Your task to perform on an android device: uninstall "Yahoo Mail" Image 0: 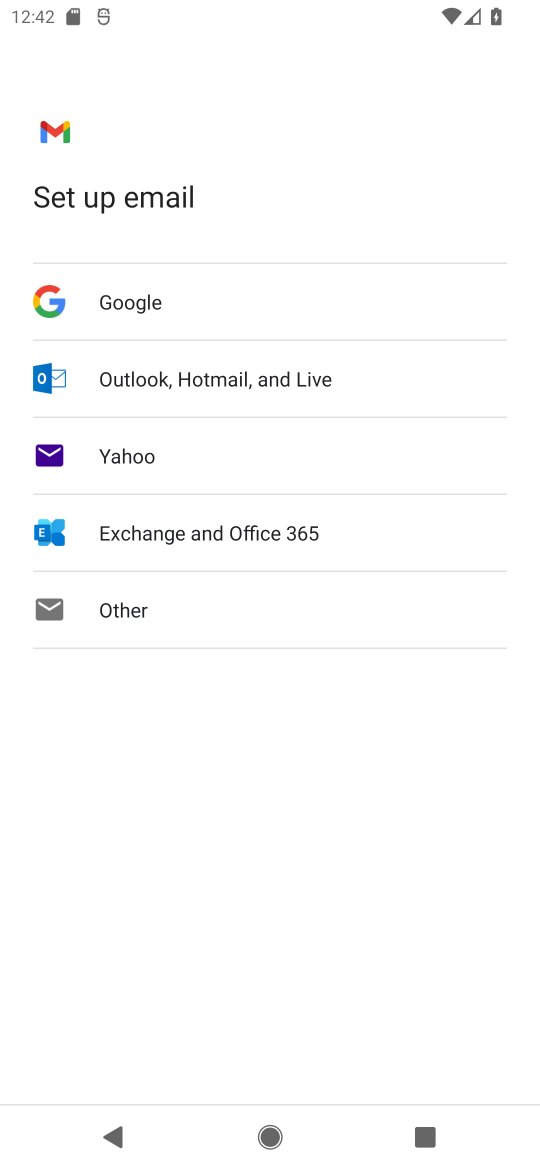
Step 0: press home button
Your task to perform on an android device: uninstall "Yahoo Mail" Image 1: 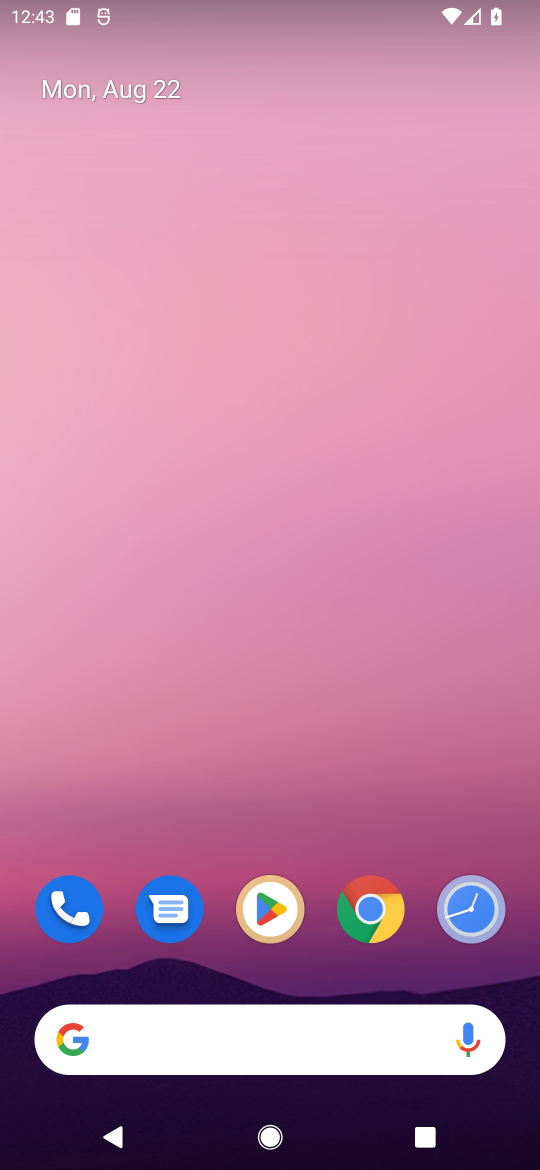
Step 1: click (259, 916)
Your task to perform on an android device: uninstall "Yahoo Mail" Image 2: 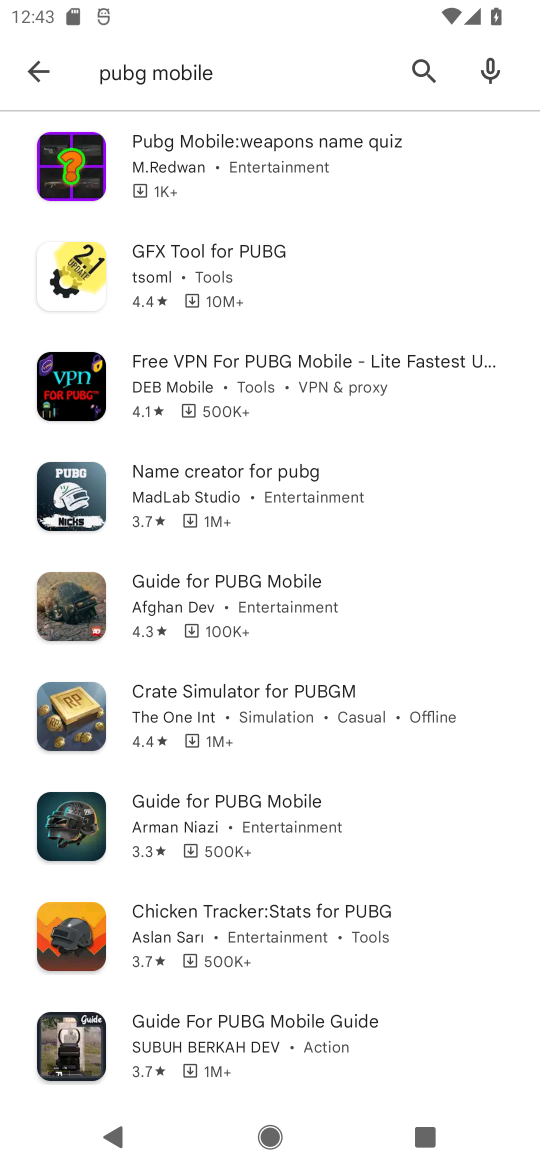
Step 2: click (406, 96)
Your task to perform on an android device: uninstall "Yahoo Mail" Image 3: 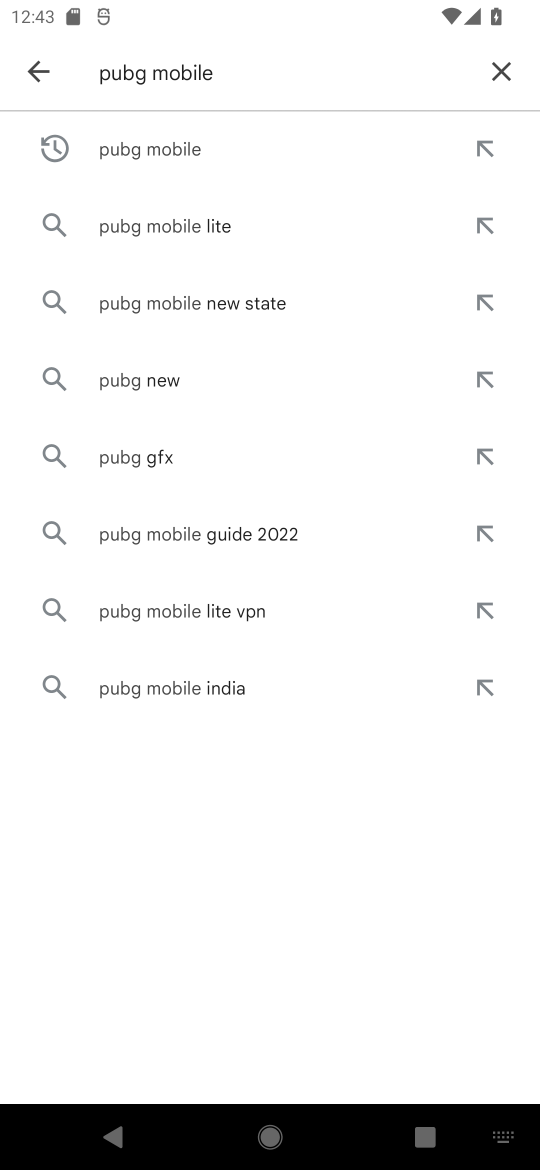
Step 3: click (518, 66)
Your task to perform on an android device: uninstall "Yahoo Mail" Image 4: 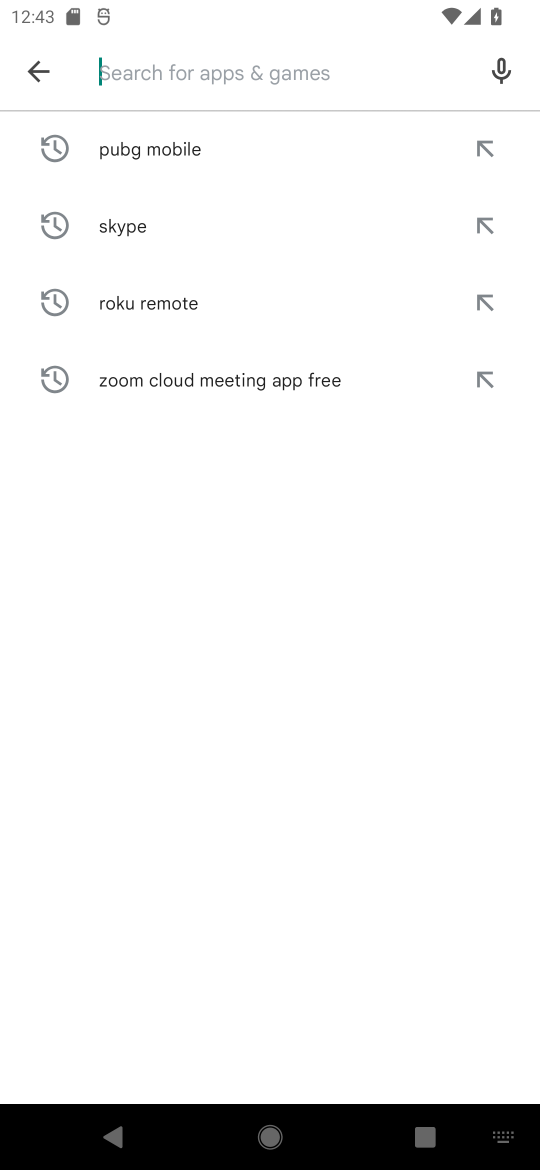
Step 4: click (166, 77)
Your task to perform on an android device: uninstall "Yahoo Mail" Image 5: 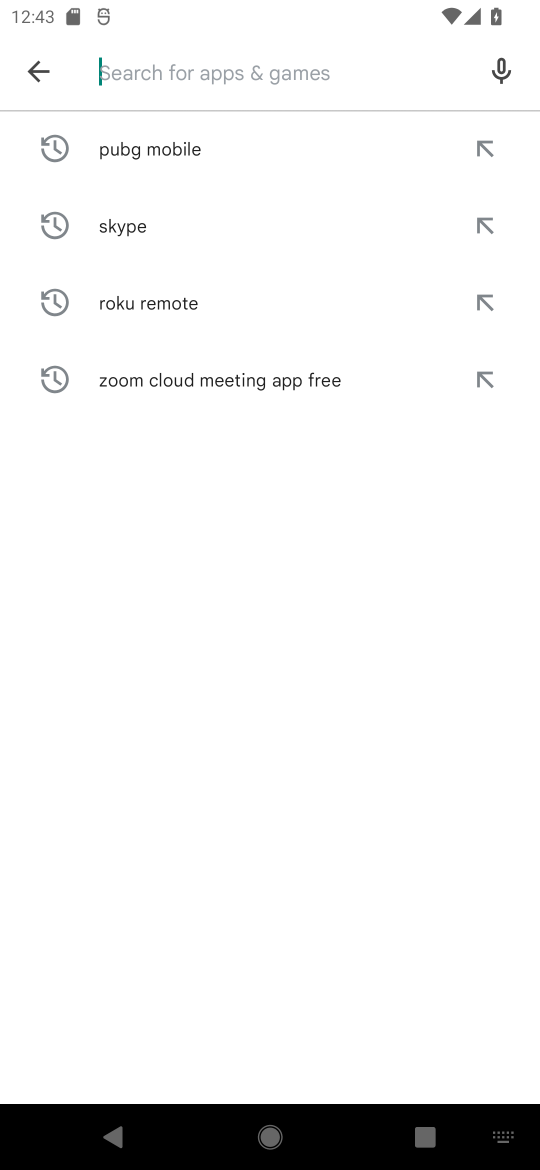
Step 5: type "Yahoo Mail"
Your task to perform on an android device: uninstall "Yahoo Mail" Image 6: 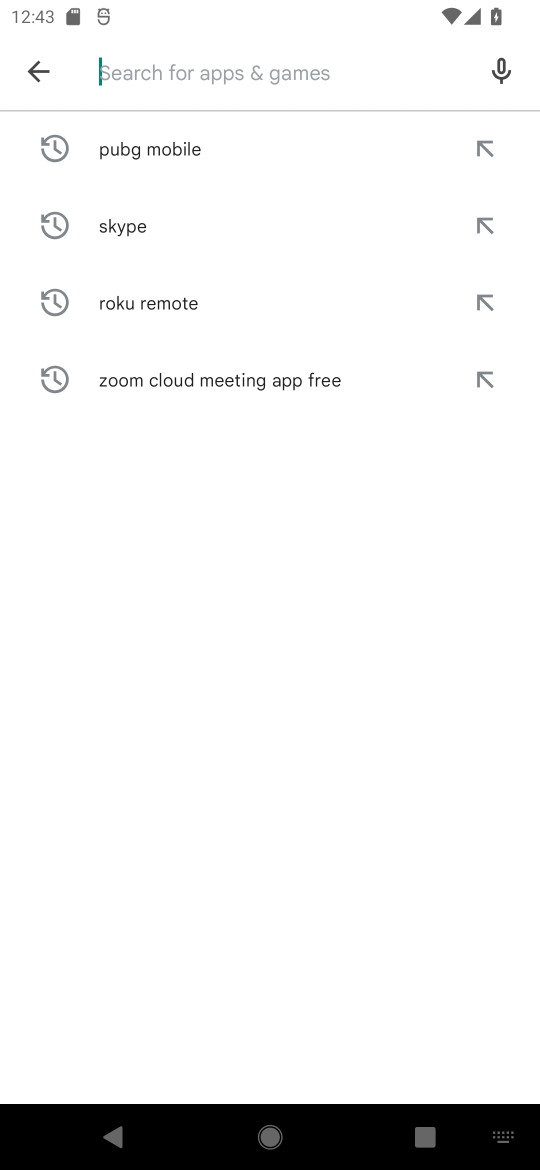
Step 6: click (339, 710)
Your task to perform on an android device: uninstall "Yahoo Mail" Image 7: 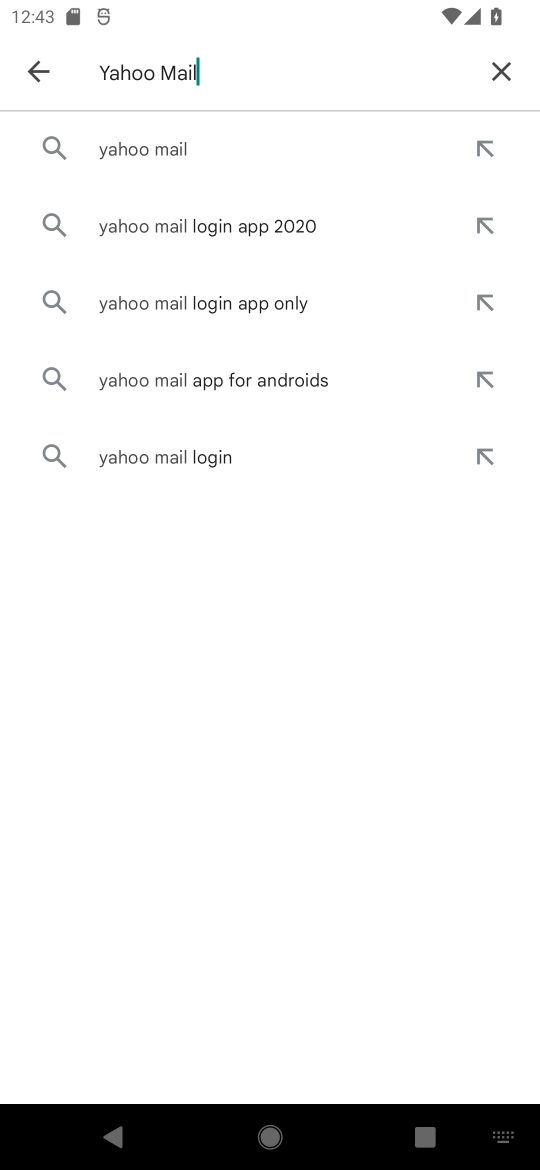
Step 7: click (157, 135)
Your task to perform on an android device: uninstall "Yahoo Mail" Image 8: 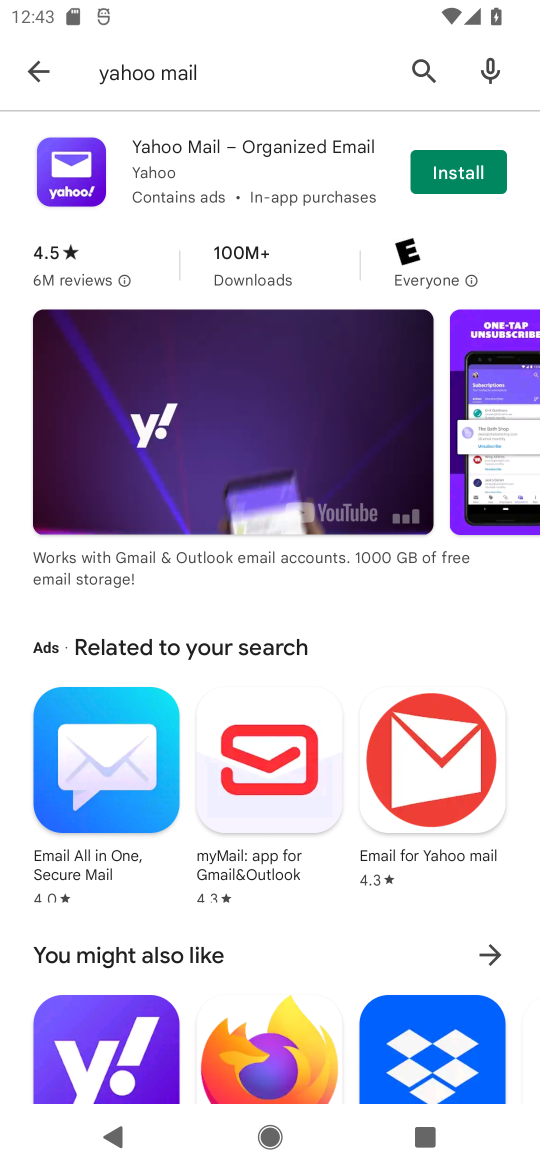
Step 8: click (247, 156)
Your task to perform on an android device: uninstall "Yahoo Mail" Image 9: 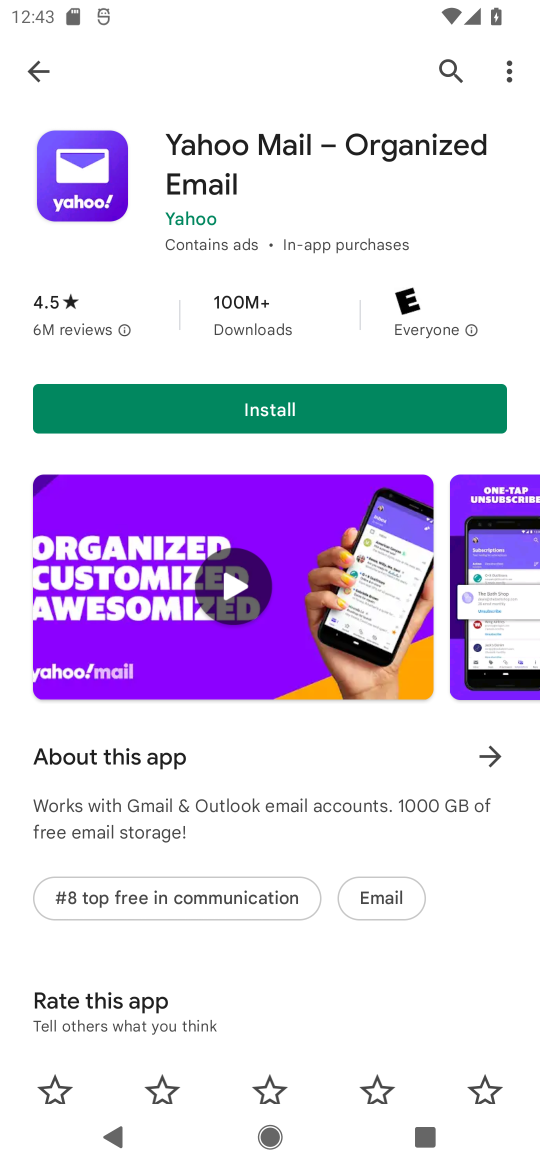
Step 9: task complete